Your task to perform on an android device: Go to sound settings Image 0: 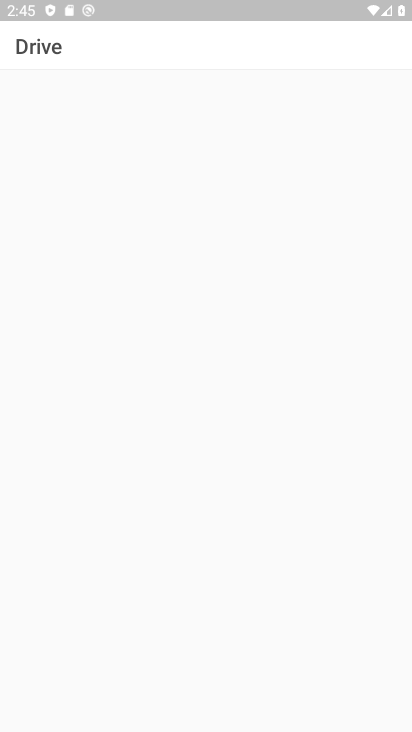
Step 0: press home button
Your task to perform on an android device: Go to sound settings Image 1: 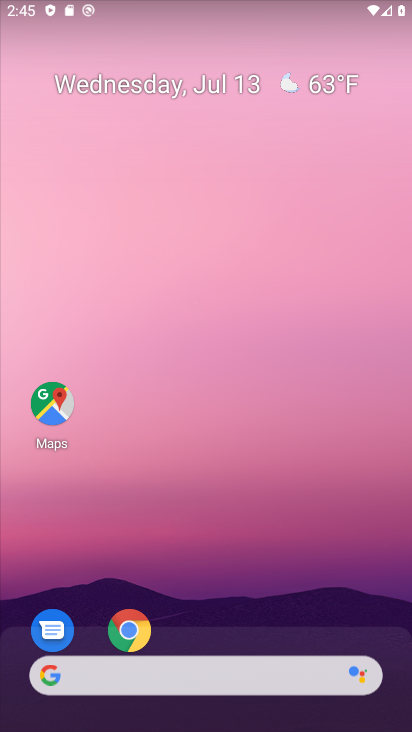
Step 1: drag from (352, 511) to (332, 4)
Your task to perform on an android device: Go to sound settings Image 2: 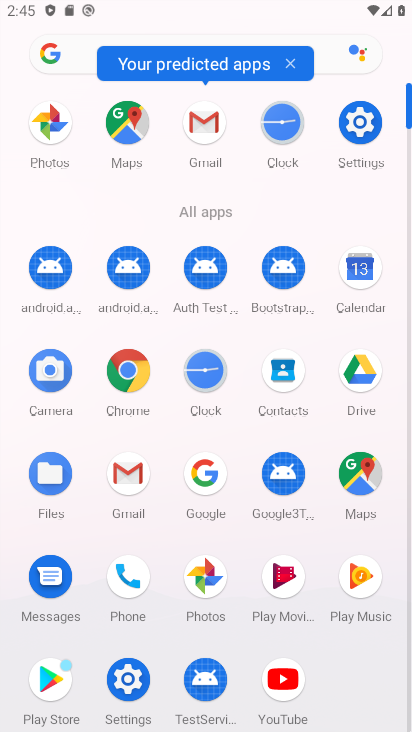
Step 2: click (356, 128)
Your task to perform on an android device: Go to sound settings Image 3: 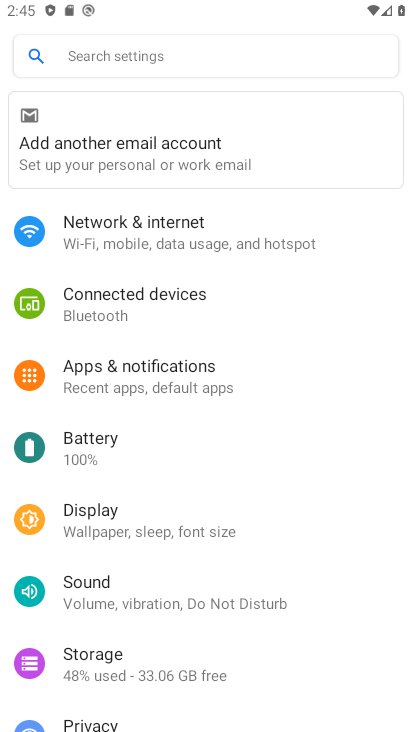
Step 3: click (183, 600)
Your task to perform on an android device: Go to sound settings Image 4: 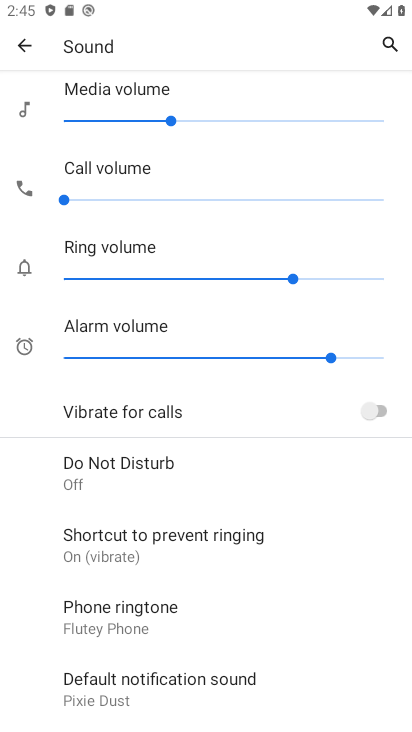
Step 4: task complete